Your task to perform on an android device: toggle pop-ups in chrome Image 0: 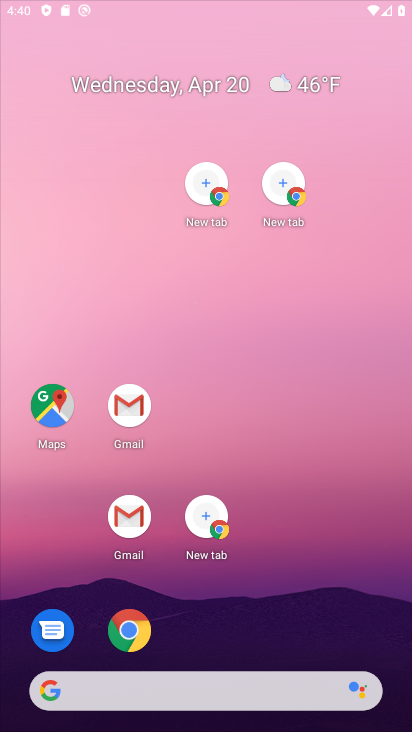
Step 0: drag from (180, 513) to (159, 97)
Your task to perform on an android device: toggle pop-ups in chrome Image 1: 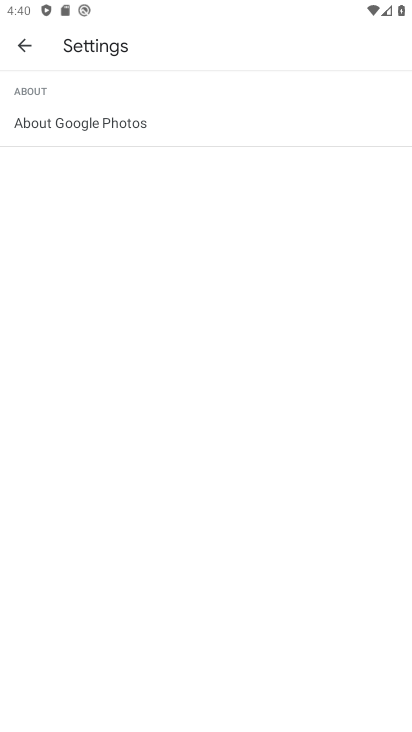
Step 1: click (15, 47)
Your task to perform on an android device: toggle pop-ups in chrome Image 2: 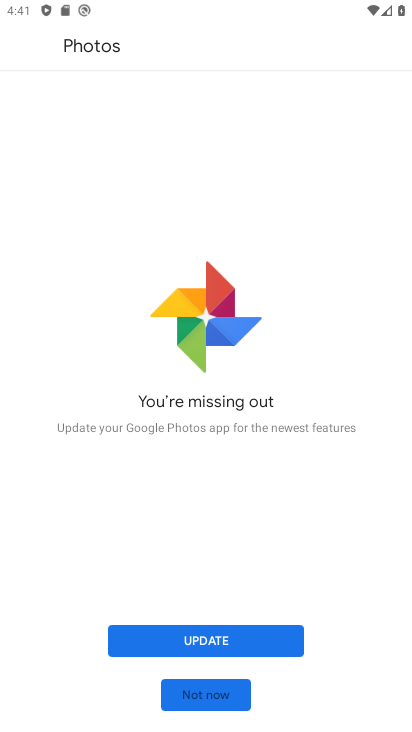
Step 2: click (214, 684)
Your task to perform on an android device: toggle pop-ups in chrome Image 3: 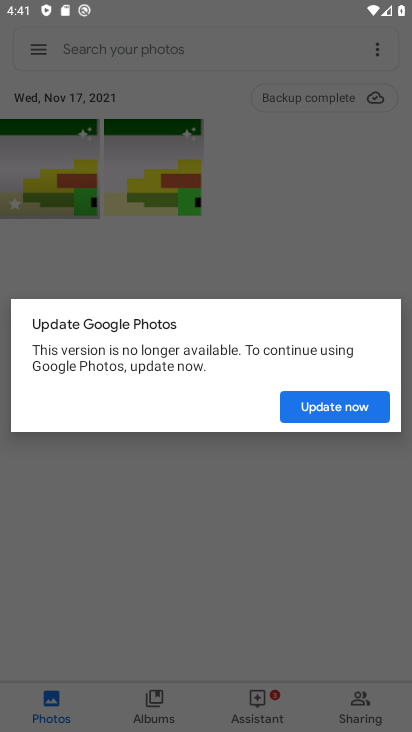
Step 3: press home button
Your task to perform on an android device: toggle pop-ups in chrome Image 4: 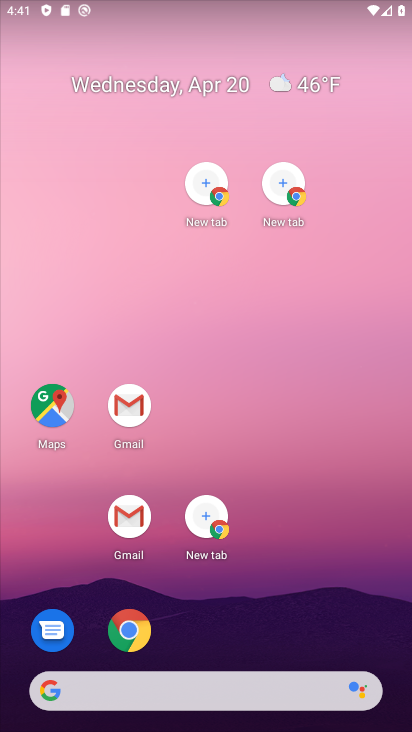
Step 4: drag from (339, 690) to (86, 35)
Your task to perform on an android device: toggle pop-ups in chrome Image 5: 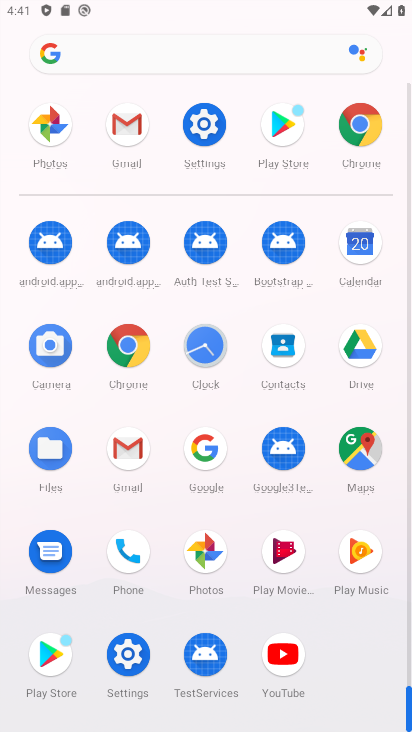
Step 5: click (207, 139)
Your task to perform on an android device: toggle pop-ups in chrome Image 6: 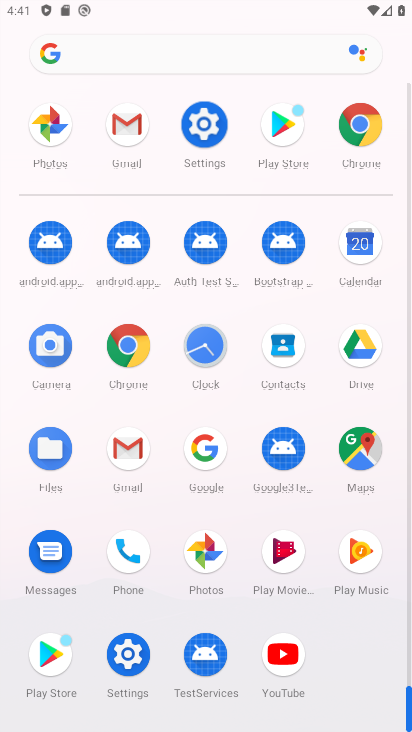
Step 6: click (207, 139)
Your task to perform on an android device: toggle pop-ups in chrome Image 7: 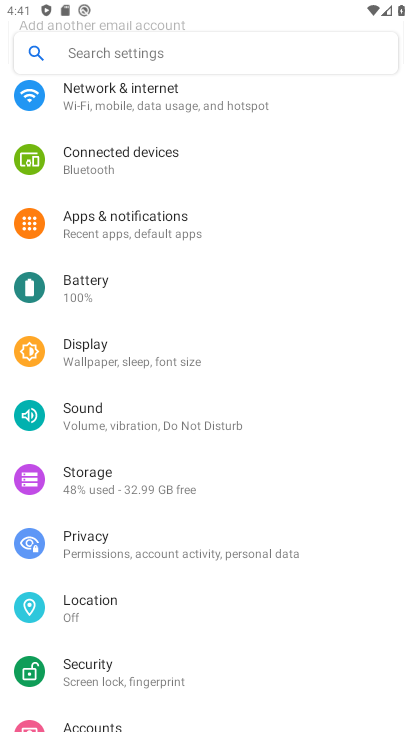
Step 7: press home button
Your task to perform on an android device: toggle pop-ups in chrome Image 8: 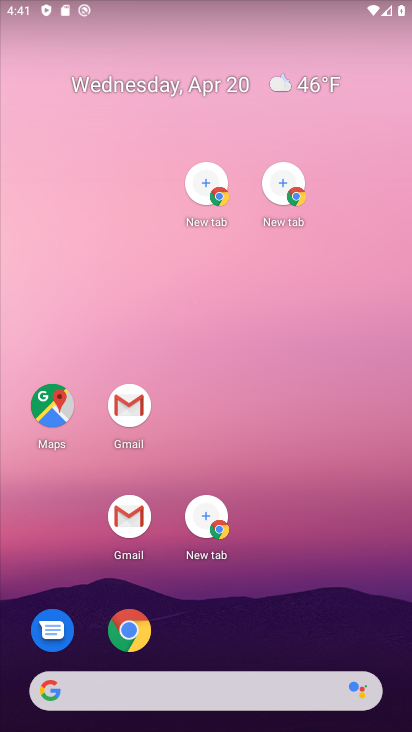
Step 8: drag from (379, 703) to (154, 127)
Your task to perform on an android device: toggle pop-ups in chrome Image 9: 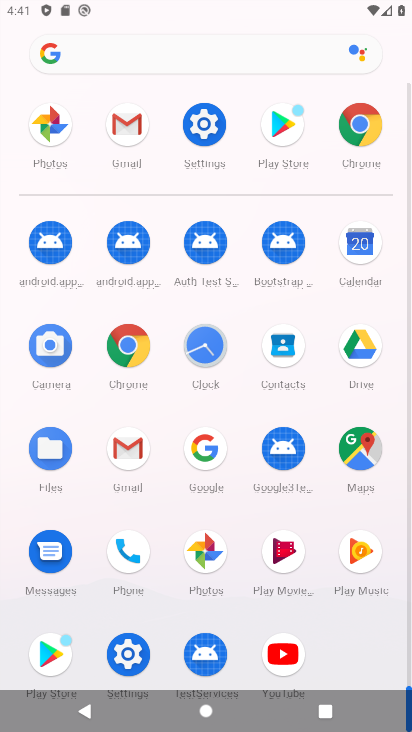
Step 9: click (360, 127)
Your task to perform on an android device: toggle pop-ups in chrome Image 10: 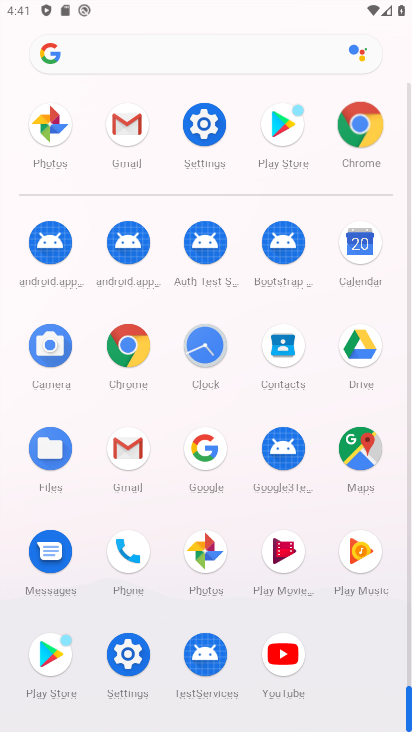
Step 10: click (360, 127)
Your task to perform on an android device: toggle pop-ups in chrome Image 11: 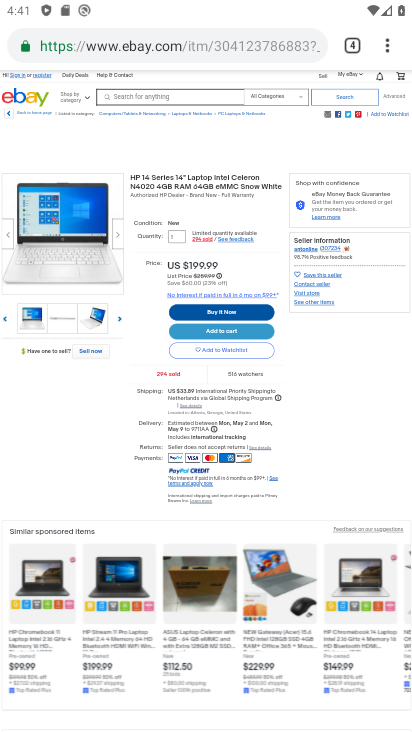
Step 11: drag from (387, 35) to (221, 589)
Your task to perform on an android device: toggle pop-ups in chrome Image 12: 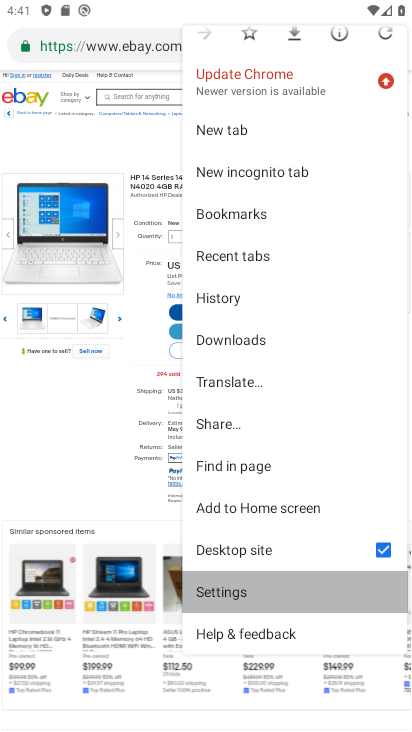
Step 12: click (146, 566)
Your task to perform on an android device: toggle pop-ups in chrome Image 13: 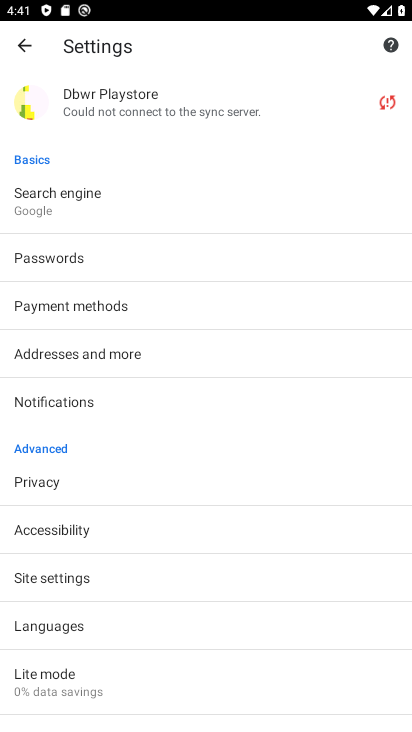
Step 13: click (56, 578)
Your task to perform on an android device: toggle pop-ups in chrome Image 14: 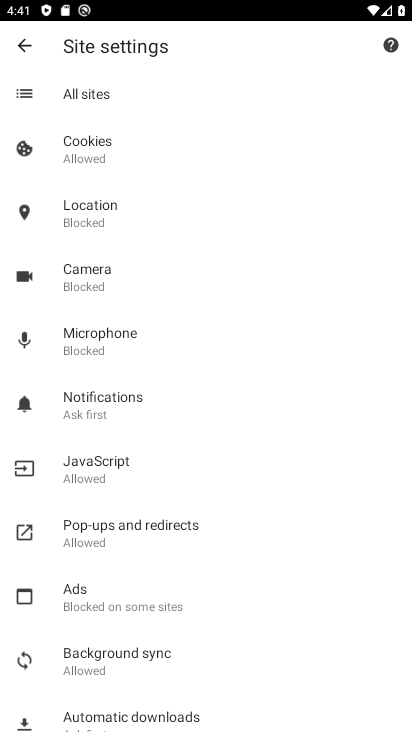
Step 14: click (94, 537)
Your task to perform on an android device: toggle pop-ups in chrome Image 15: 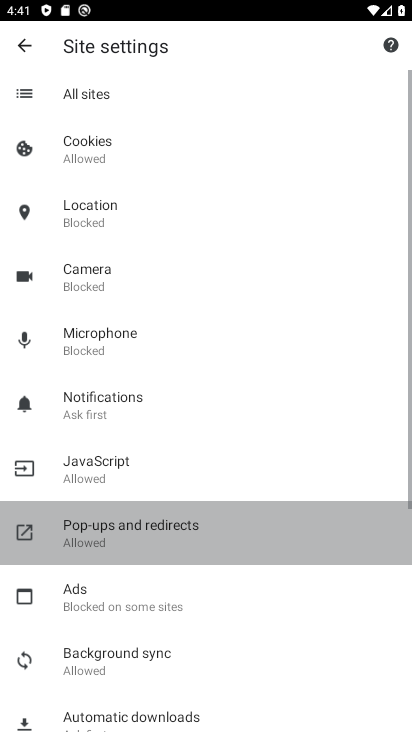
Step 15: click (94, 537)
Your task to perform on an android device: toggle pop-ups in chrome Image 16: 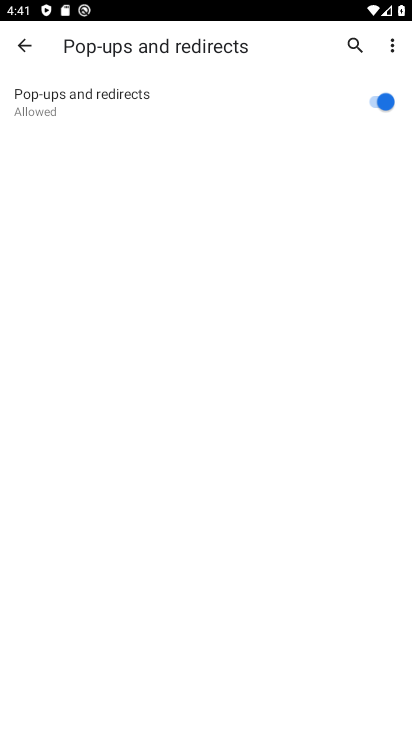
Step 16: click (385, 92)
Your task to perform on an android device: toggle pop-ups in chrome Image 17: 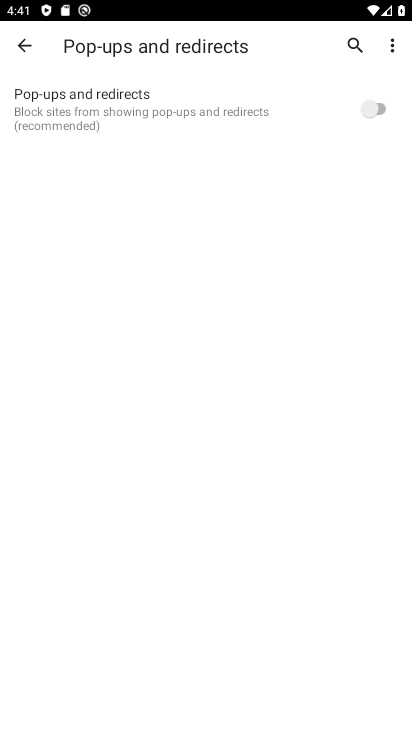
Step 17: task complete